Your task to perform on an android device: Open the calendar app, open the side menu, and click the "Day" option Image 0: 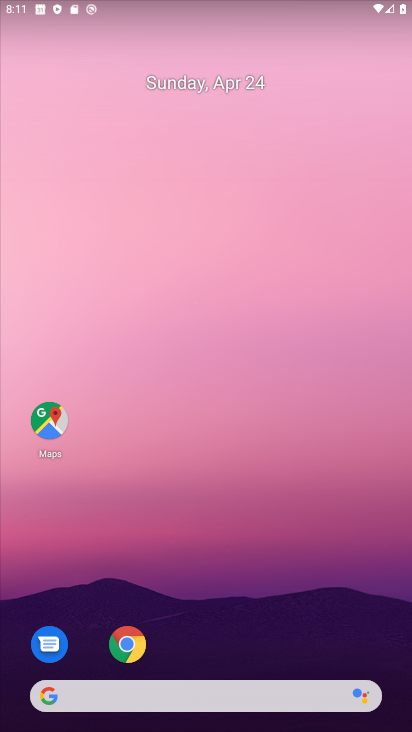
Step 0: drag from (172, 564) to (338, 18)
Your task to perform on an android device: Open the calendar app, open the side menu, and click the "Day" option Image 1: 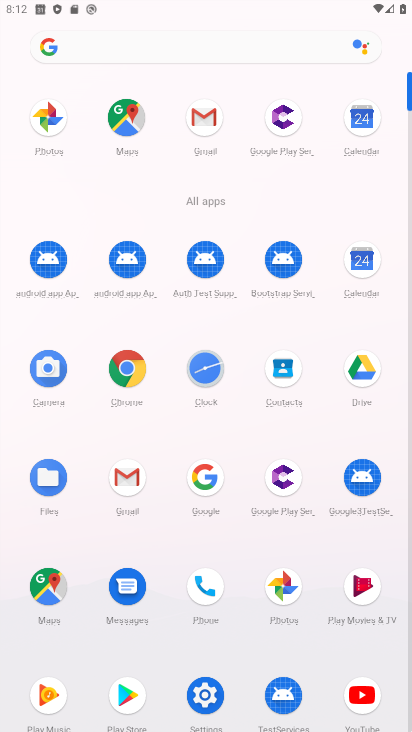
Step 1: click (362, 256)
Your task to perform on an android device: Open the calendar app, open the side menu, and click the "Day" option Image 2: 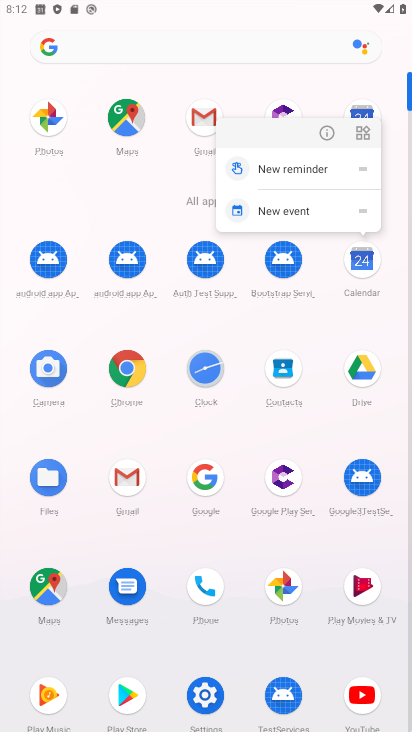
Step 2: click (327, 131)
Your task to perform on an android device: Open the calendar app, open the side menu, and click the "Day" option Image 3: 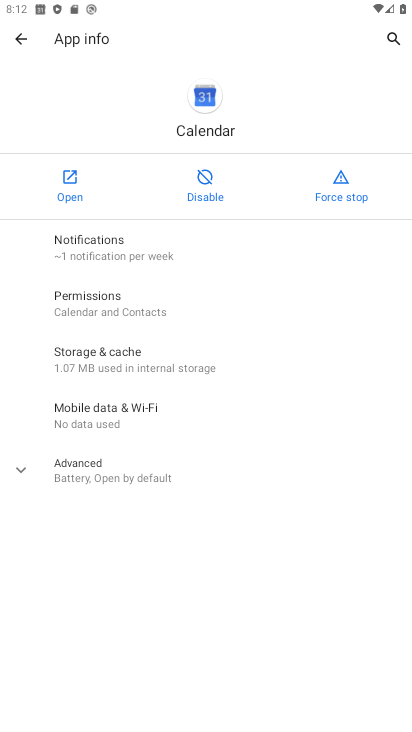
Step 3: click (76, 190)
Your task to perform on an android device: Open the calendar app, open the side menu, and click the "Day" option Image 4: 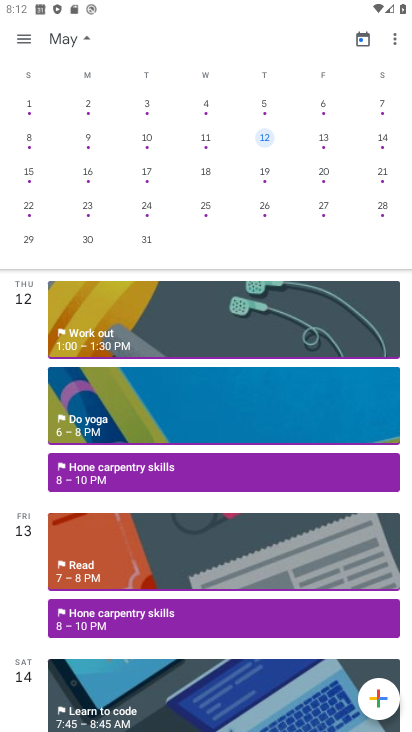
Step 4: click (22, 48)
Your task to perform on an android device: Open the calendar app, open the side menu, and click the "Day" option Image 5: 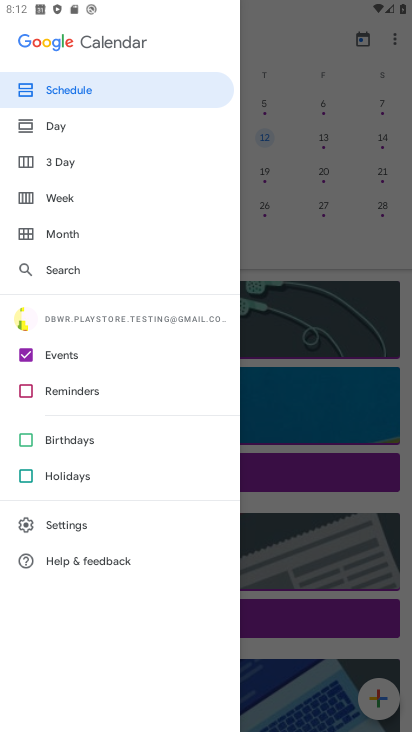
Step 5: click (113, 121)
Your task to perform on an android device: Open the calendar app, open the side menu, and click the "Day" option Image 6: 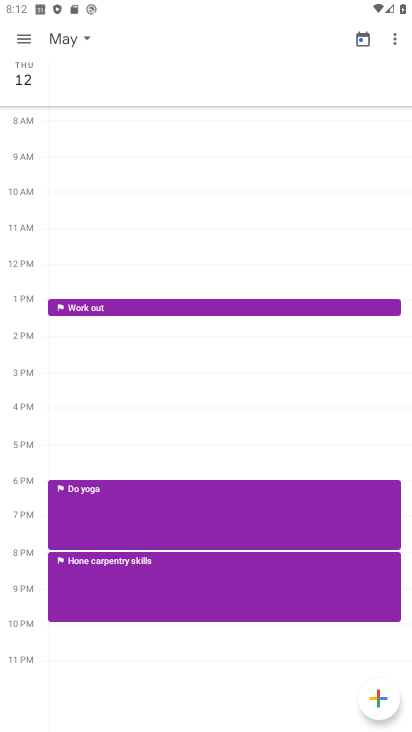
Step 6: task complete